Your task to perform on an android device: Search for seafood restaurants on Google Maps Image 0: 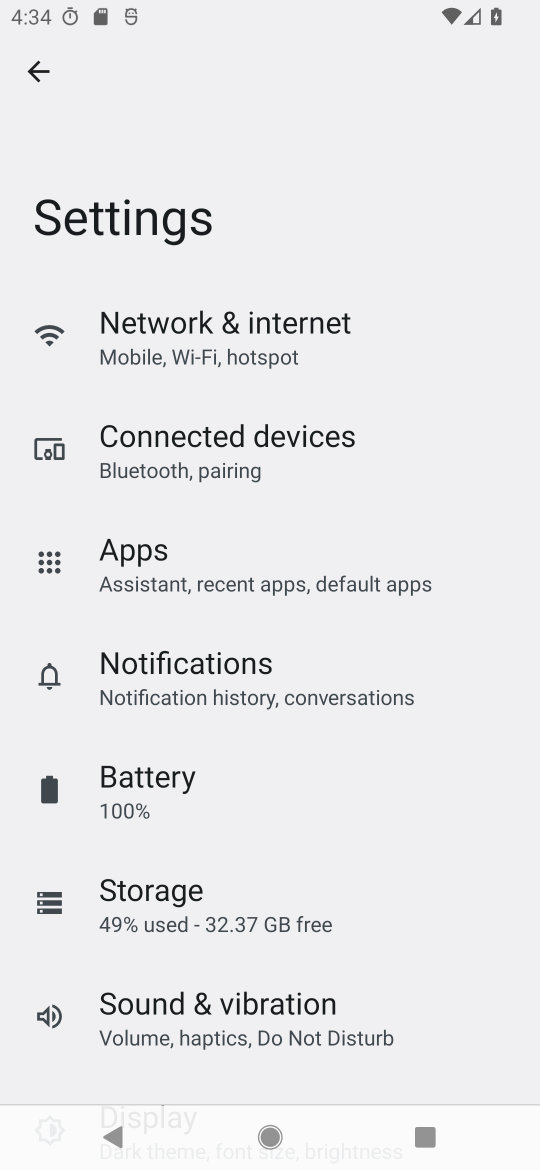
Step 0: press home button
Your task to perform on an android device: Search for seafood restaurants on Google Maps Image 1: 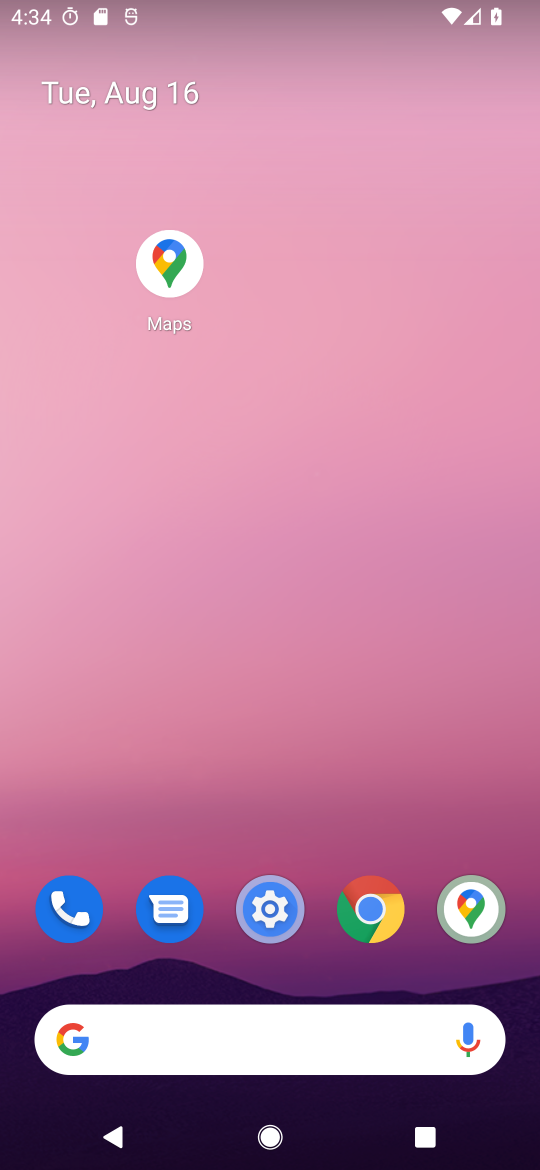
Step 1: drag from (253, 878) to (272, 103)
Your task to perform on an android device: Search for seafood restaurants on Google Maps Image 2: 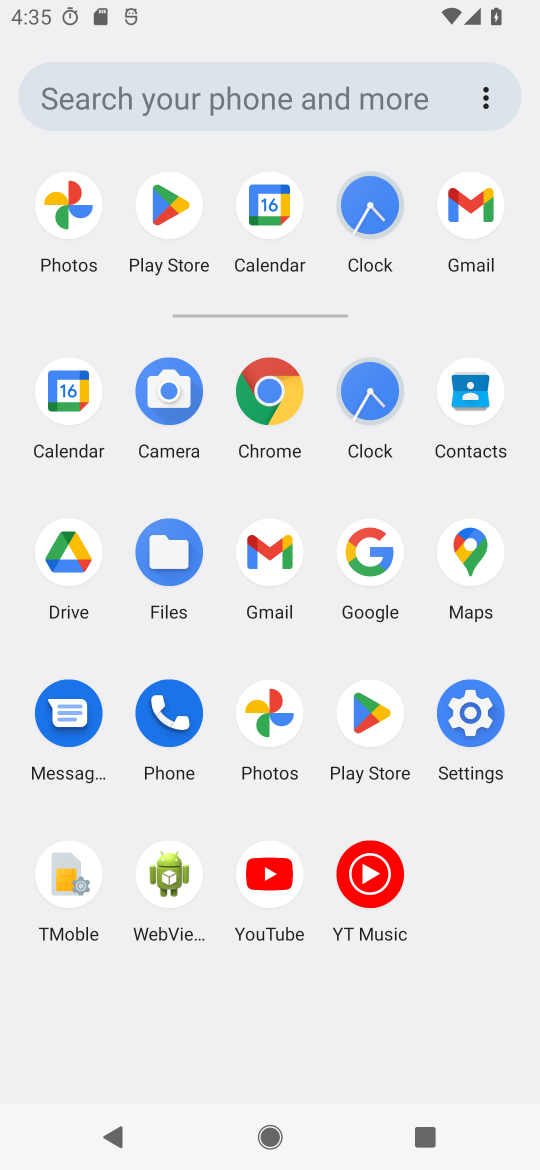
Step 2: click (466, 561)
Your task to perform on an android device: Search for seafood restaurants on Google Maps Image 3: 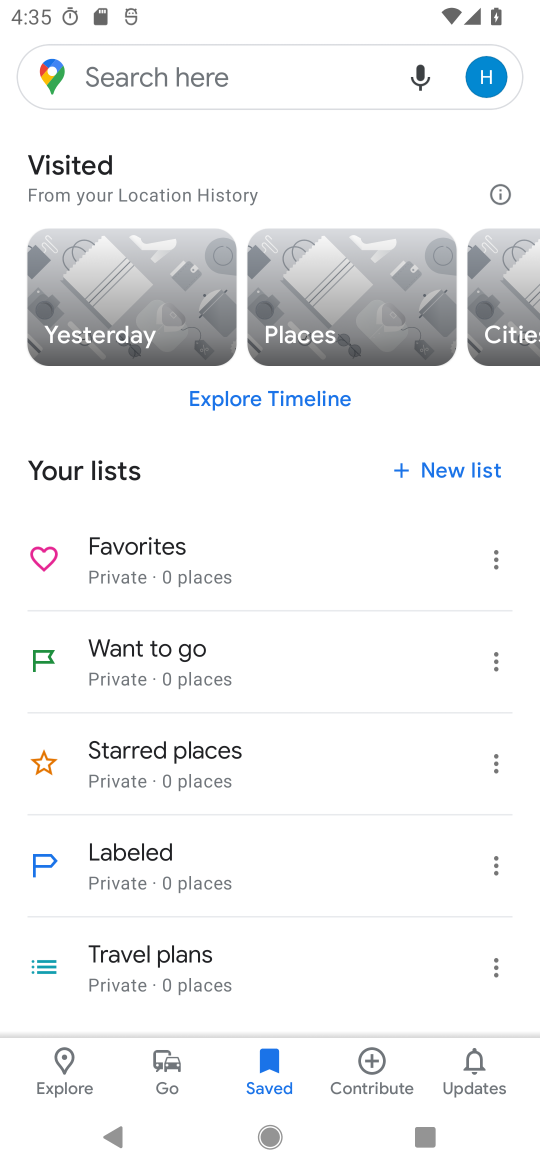
Step 3: drag from (196, 907) to (196, 478)
Your task to perform on an android device: Search for seafood restaurants on Google Maps Image 4: 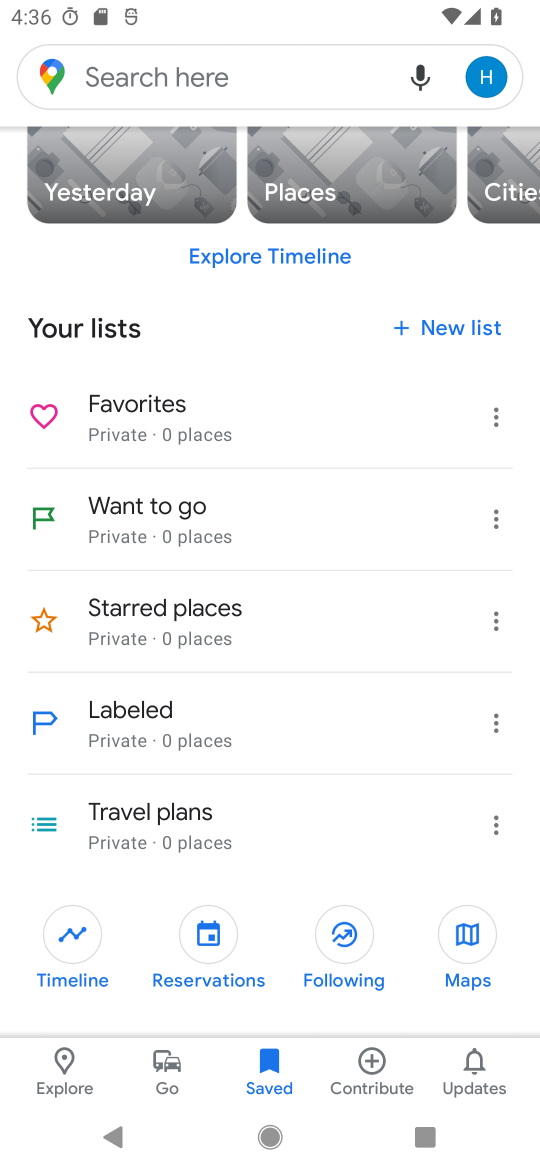
Step 4: drag from (258, 547) to (258, 1146)
Your task to perform on an android device: Search for seafood restaurants on Google Maps Image 5: 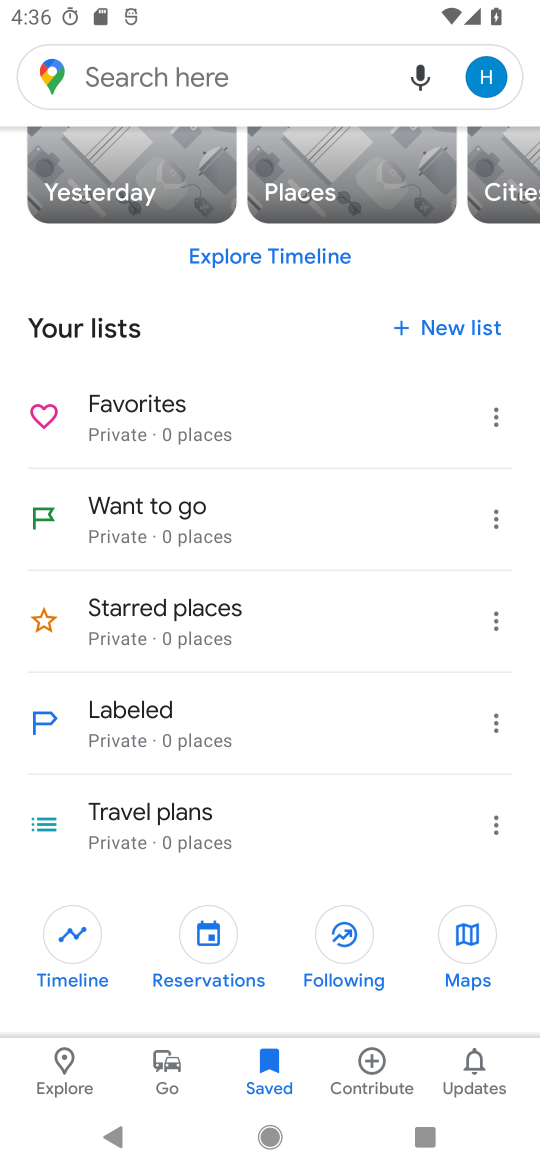
Step 5: drag from (242, 446) to (190, 1151)
Your task to perform on an android device: Search for seafood restaurants on Google Maps Image 6: 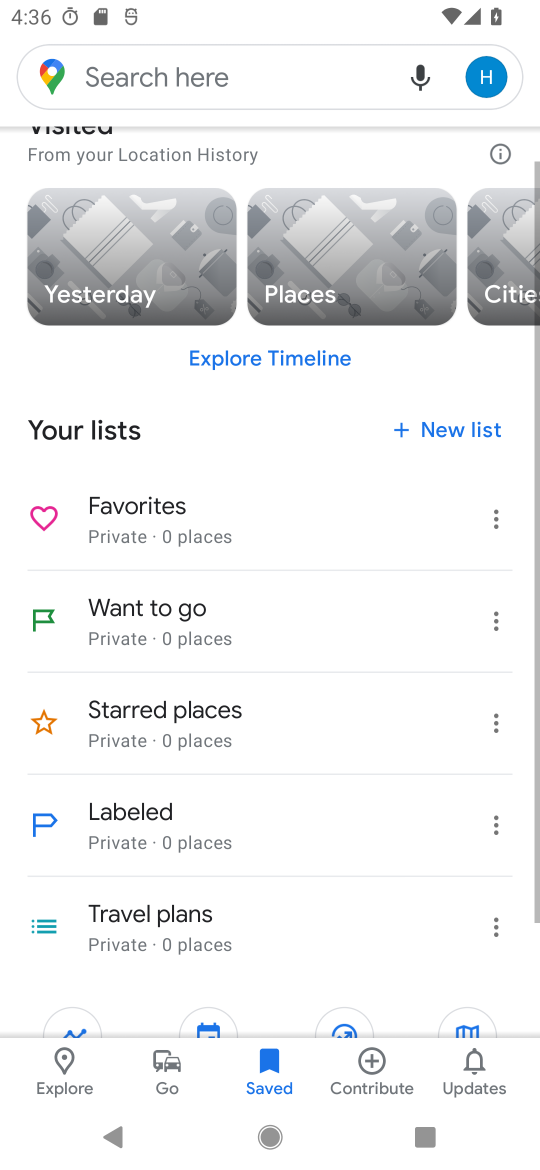
Step 6: click (218, 567)
Your task to perform on an android device: Search for seafood restaurants on Google Maps Image 7: 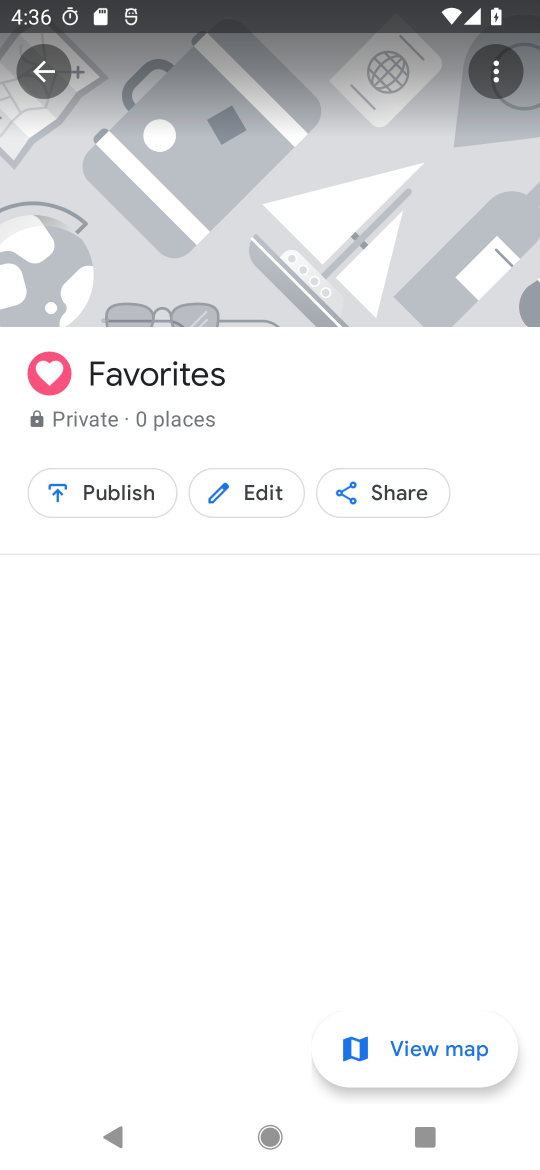
Step 7: press back button
Your task to perform on an android device: Search for seafood restaurants on Google Maps Image 8: 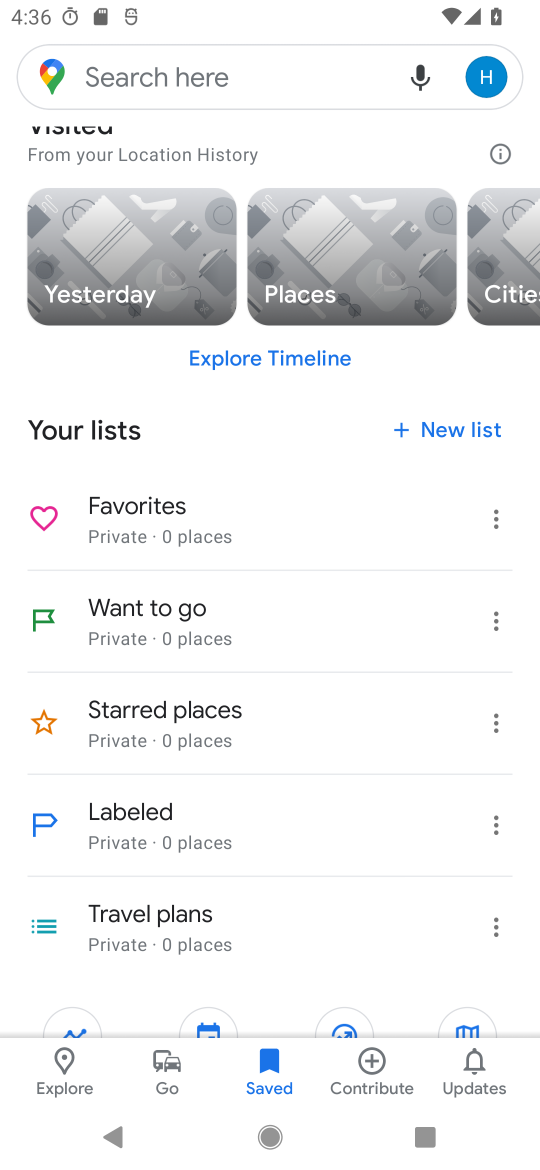
Step 8: click (236, 67)
Your task to perform on an android device: Search for seafood restaurants on Google Maps Image 9: 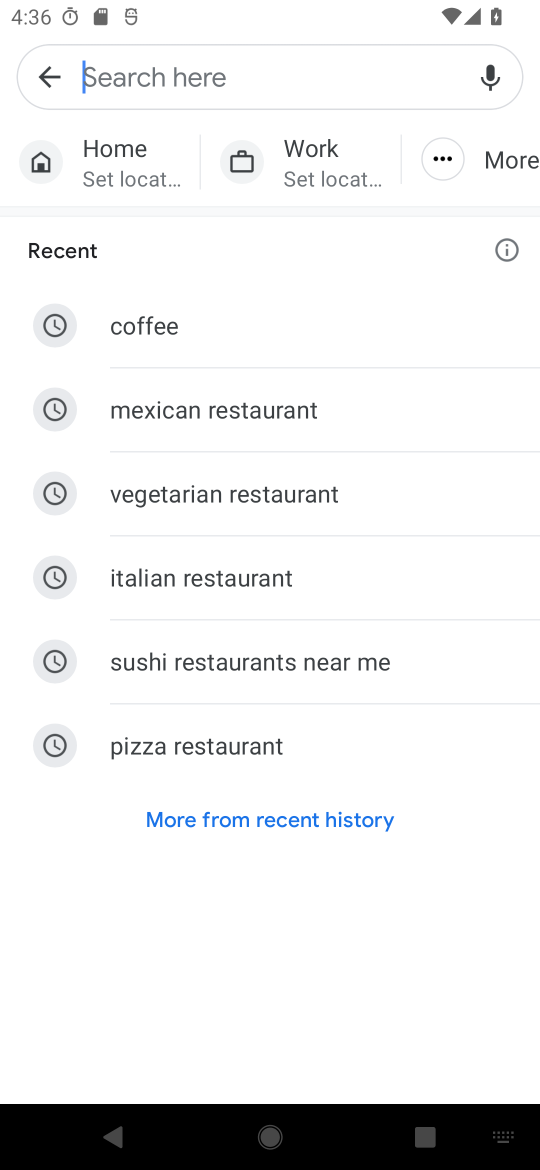
Step 9: type "seafood restaurants"
Your task to perform on an android device: Search for seafood restaurants on Google Maps Image 10: 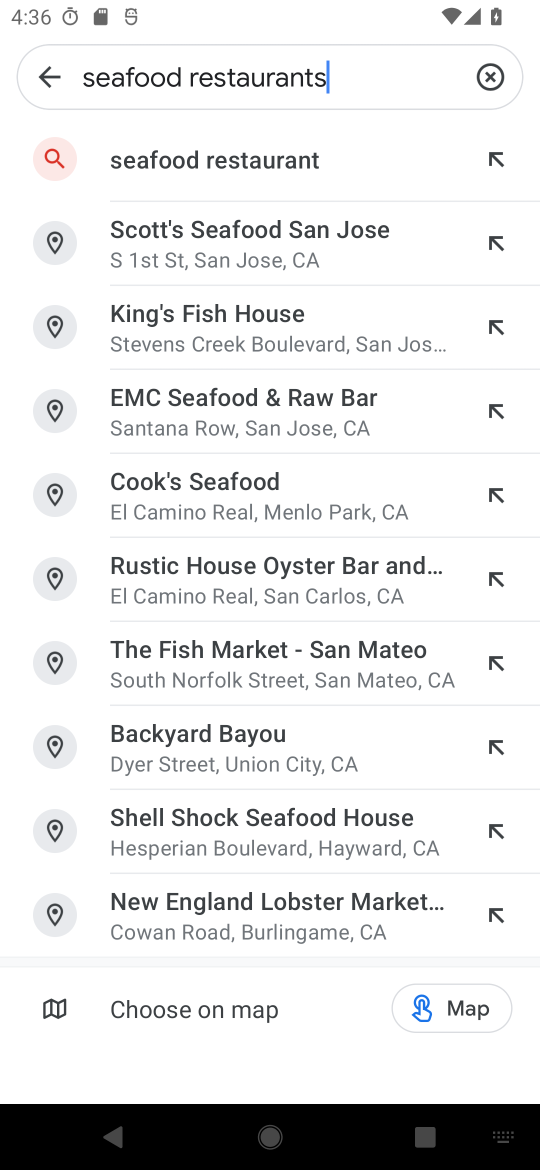
Step 10: click (225, 164)
Your task to perform on an android device: Search for seafood restaurants on Google Maps Image 11: 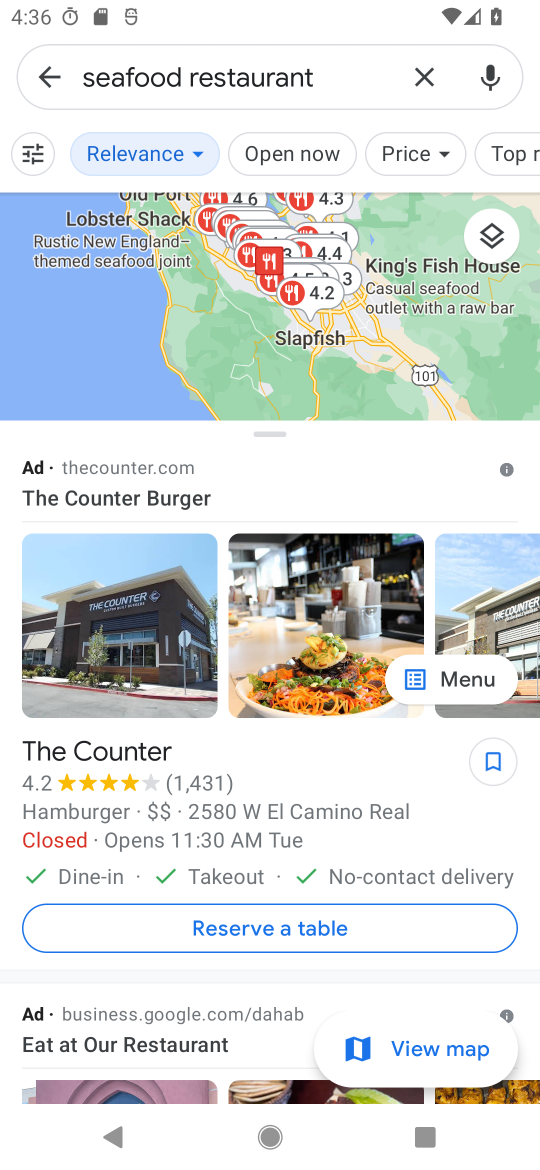
Step 11: task complete